Your task to perform on an android device: Open Yahoo.com Image 0: 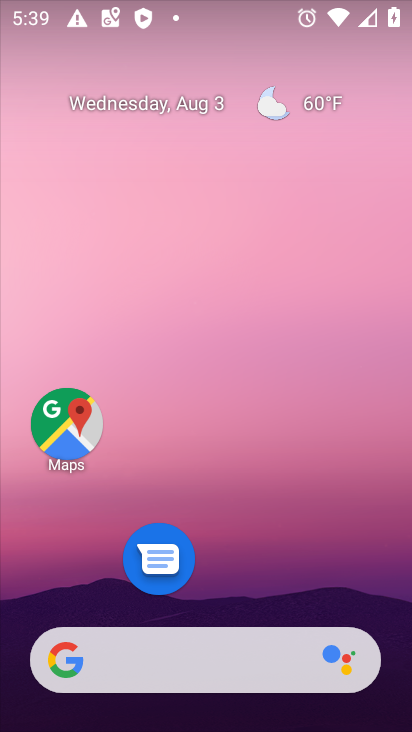
Step 0: drag from (197, 666) to (244, 141)
Your task to perform on an android device: Open Yahoo.com Image 1: 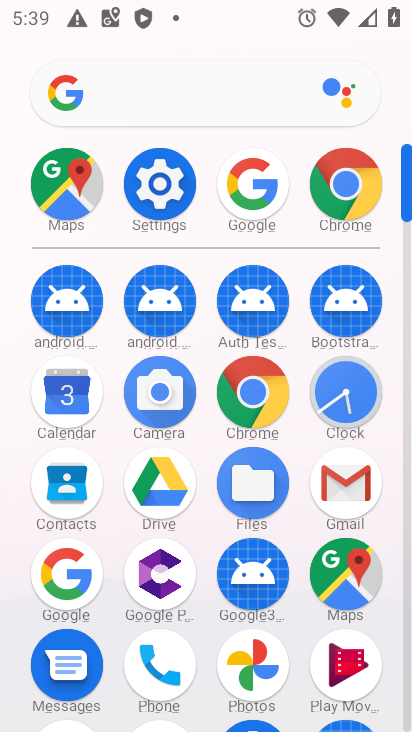
Step 1: click (343, 188)
Your task to perform on an android device: Open Yahoo.com Image 2: 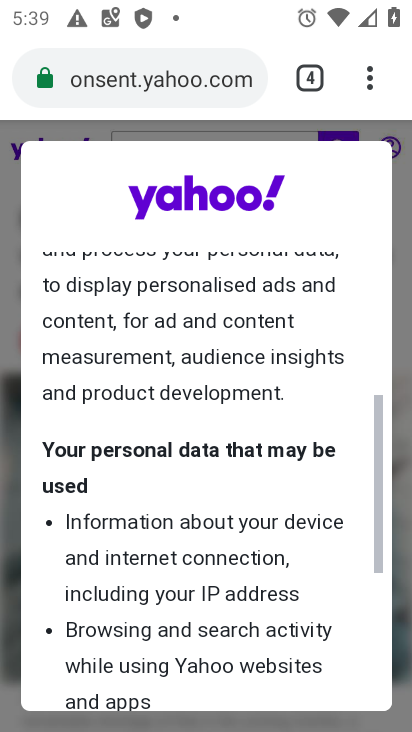
Step 2: task complete